Your task to perform on an android device: uninstall "LiveIn - Share Your Moment" Image 0: 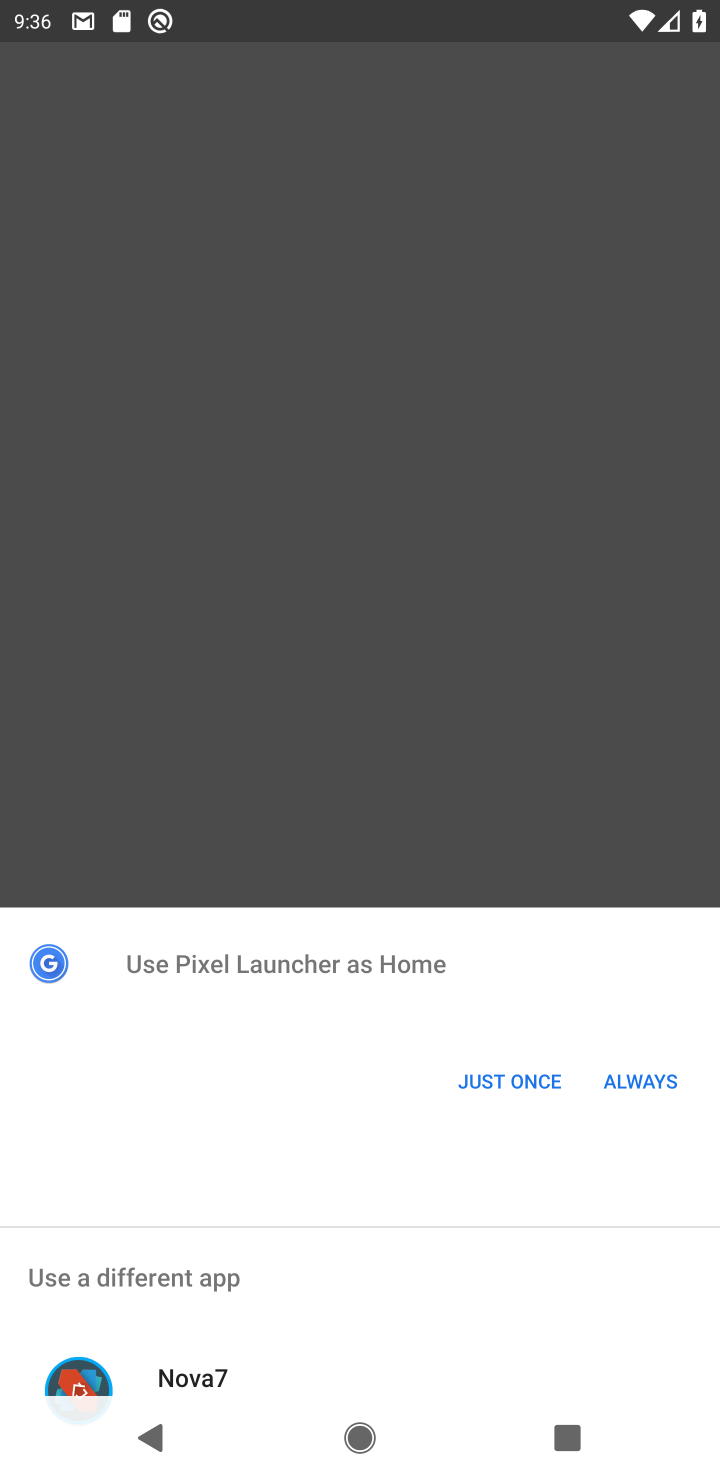
Step 0: press back button
Your task to perform on an android device: uninstall "LiveIn - Share Your Moment" Image 1: 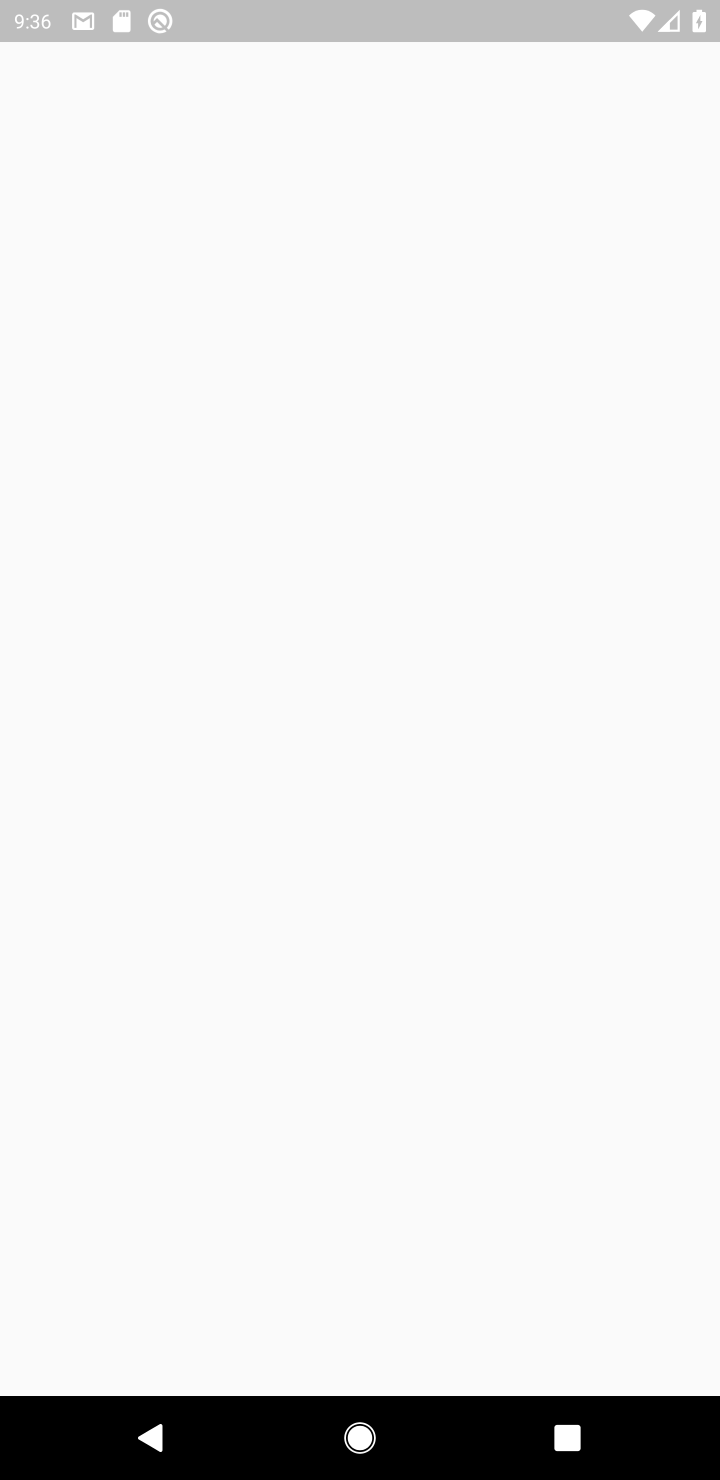
Step 1: press back button
Your task to perform on an android device: uninstall "LiveIn - Share Your Moment" Image 2: 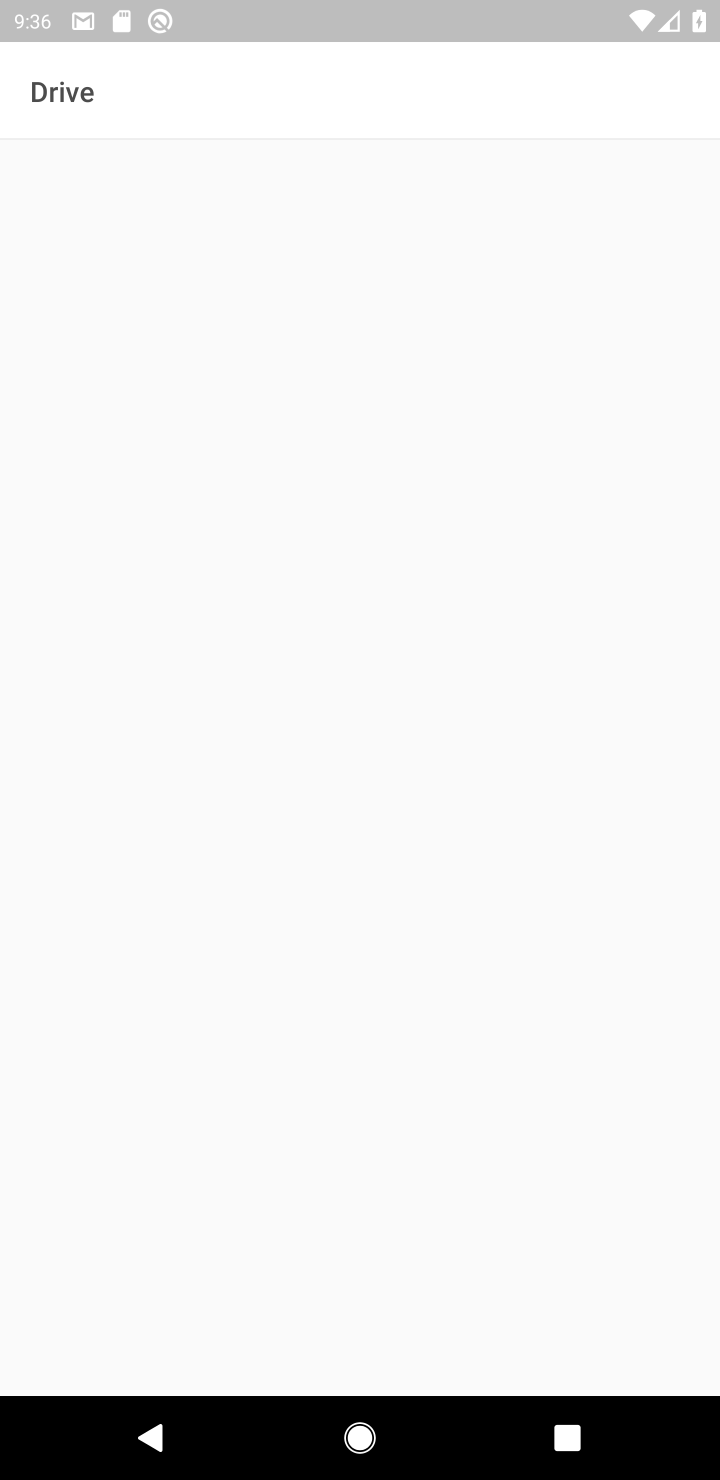
Step 2: press home button
Your task to perform on an android device: uninstall "LiveIn - Share Your Moment" Image 3: 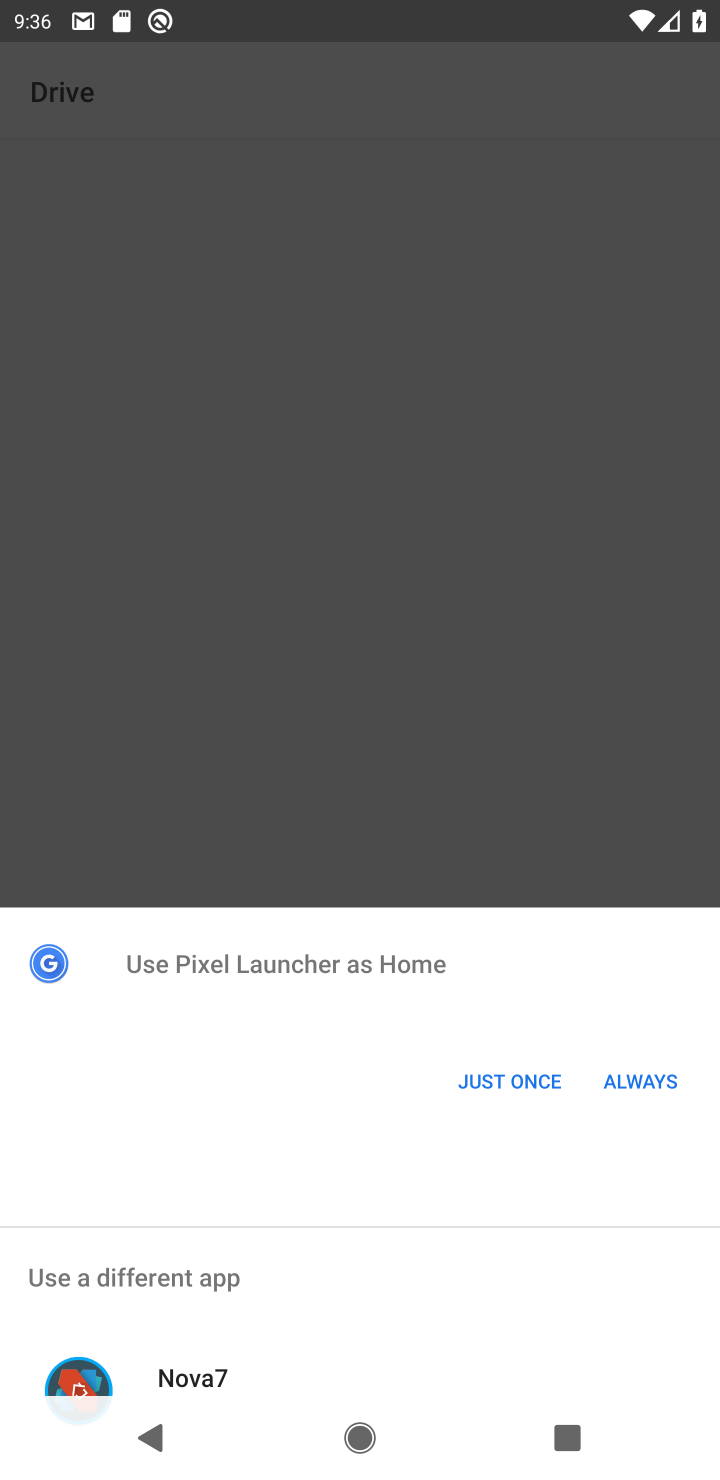
Step 3: press back button
Your task to perform on an android device: uninstall "LiveIn - Share Your Moment" Image 4: 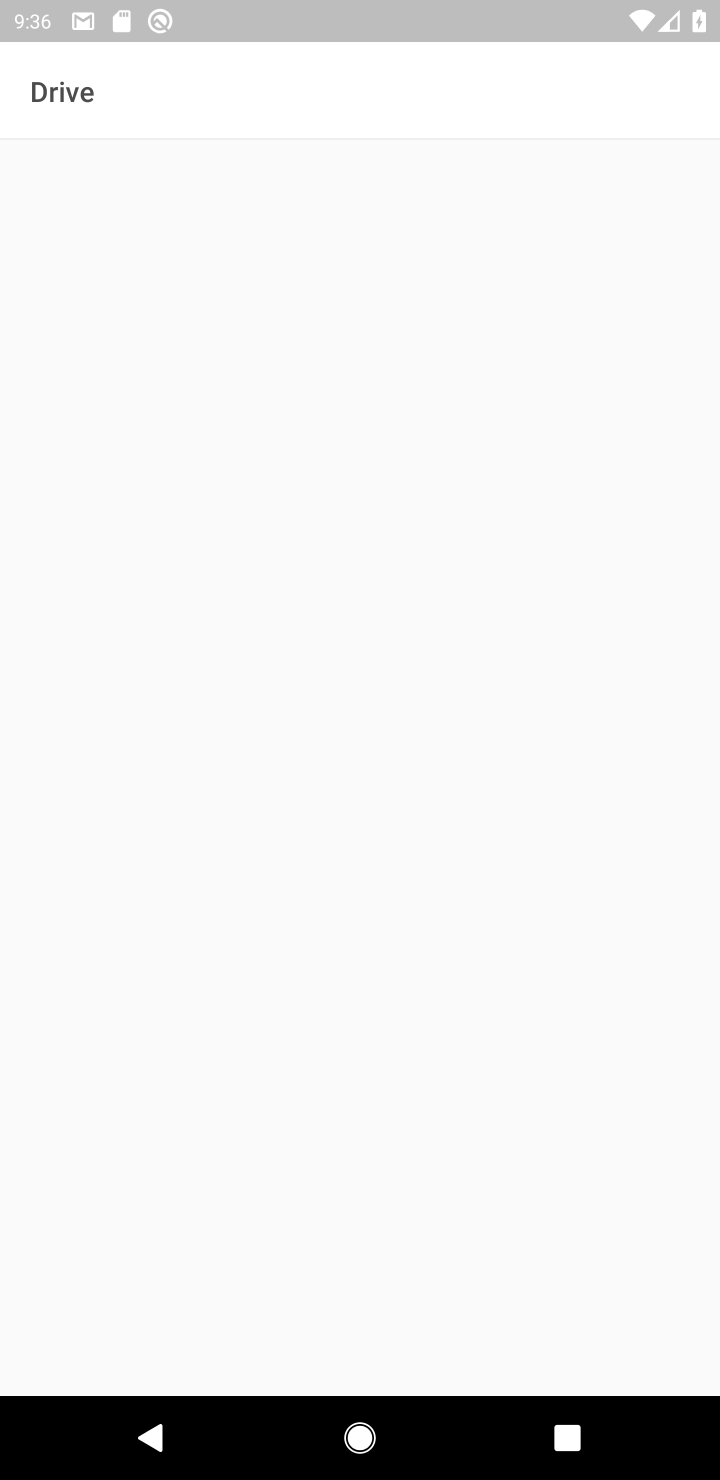
Step 4: press back button
Your task to perform on an android device: uninstall "LiveIn - Share Your Moment" Image 5: 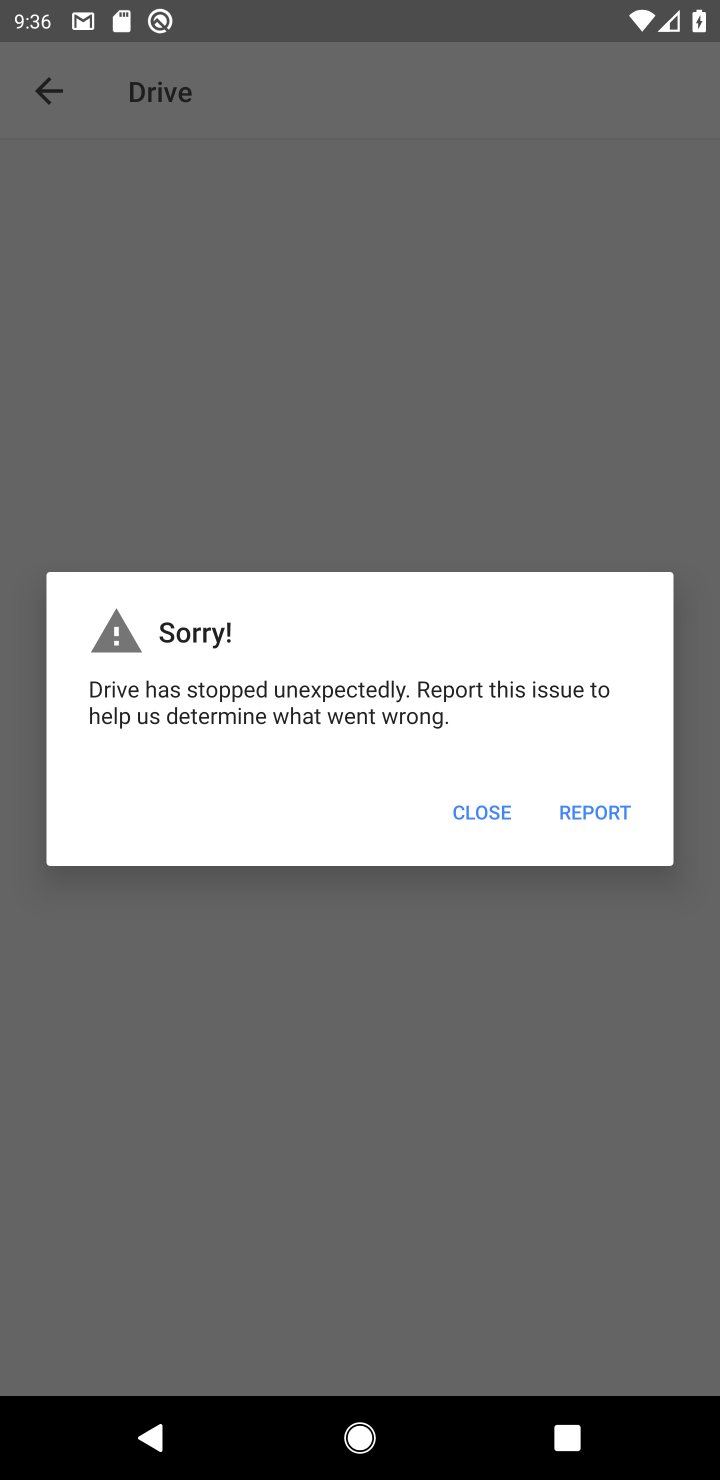
Step 5: press back button
Your task to perform on an android device: uninstall "LiveIn - Share Your Moment" Image 6: 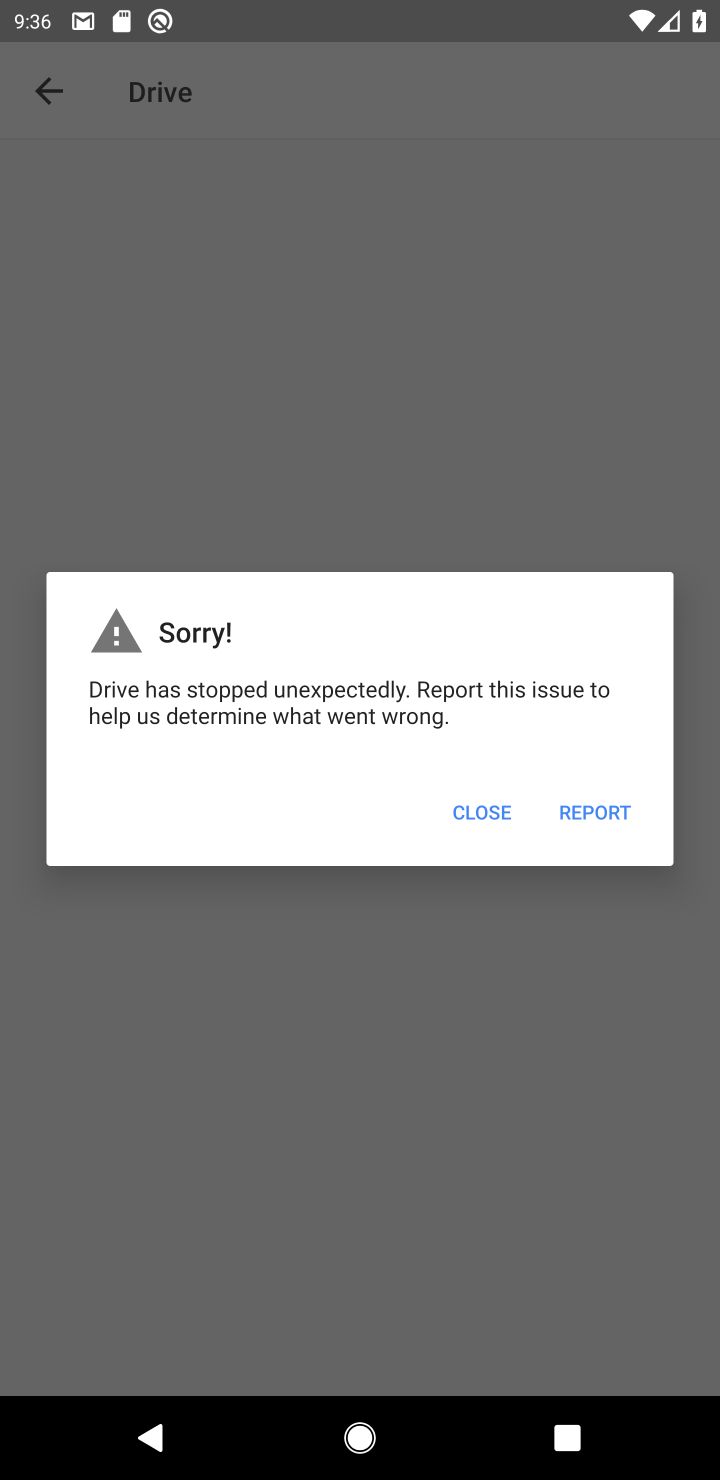
Step 6: press back button
Your task to perform on an android device: uninstall "LiveIn - Share Your Moment" Image 7: 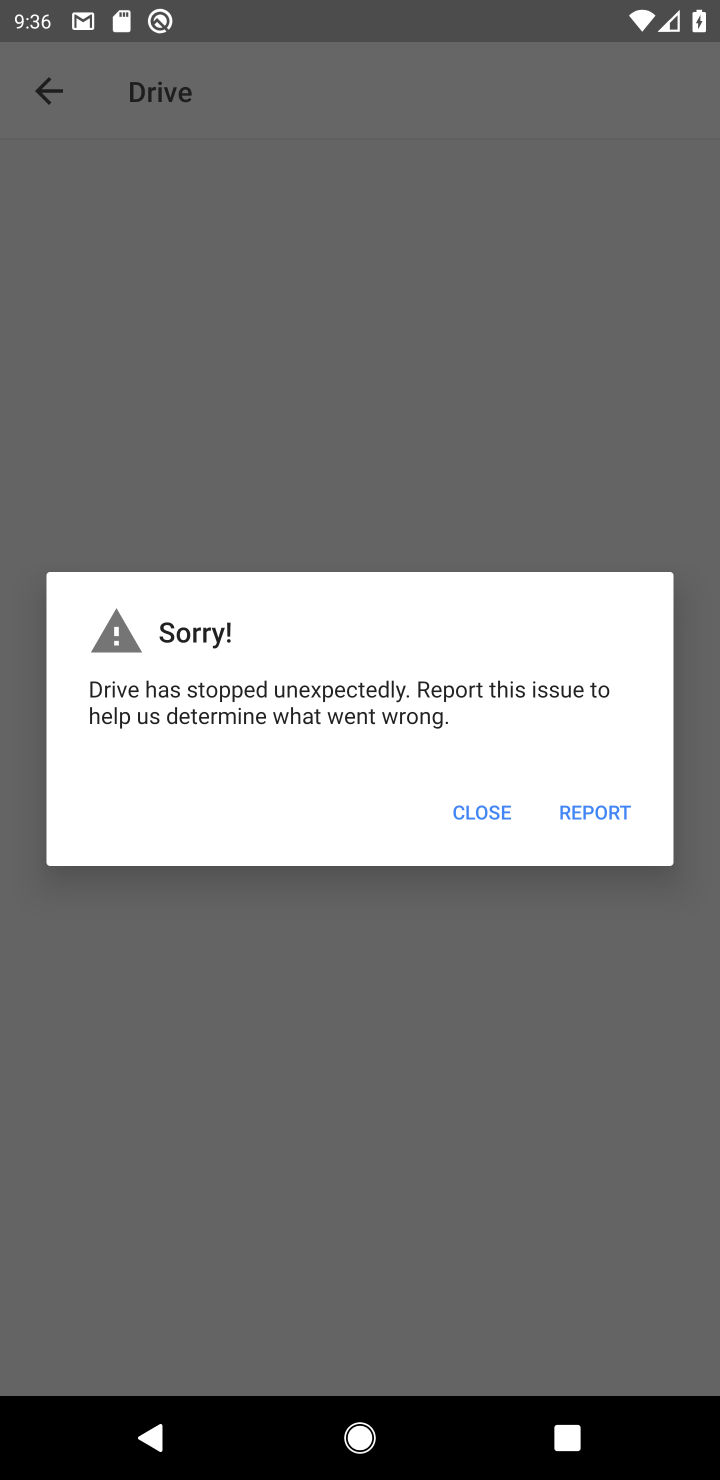
Step 7: press back button
Your task to perform on an android device: uninstall "LiveIn - Share Your Moment" Image 8: 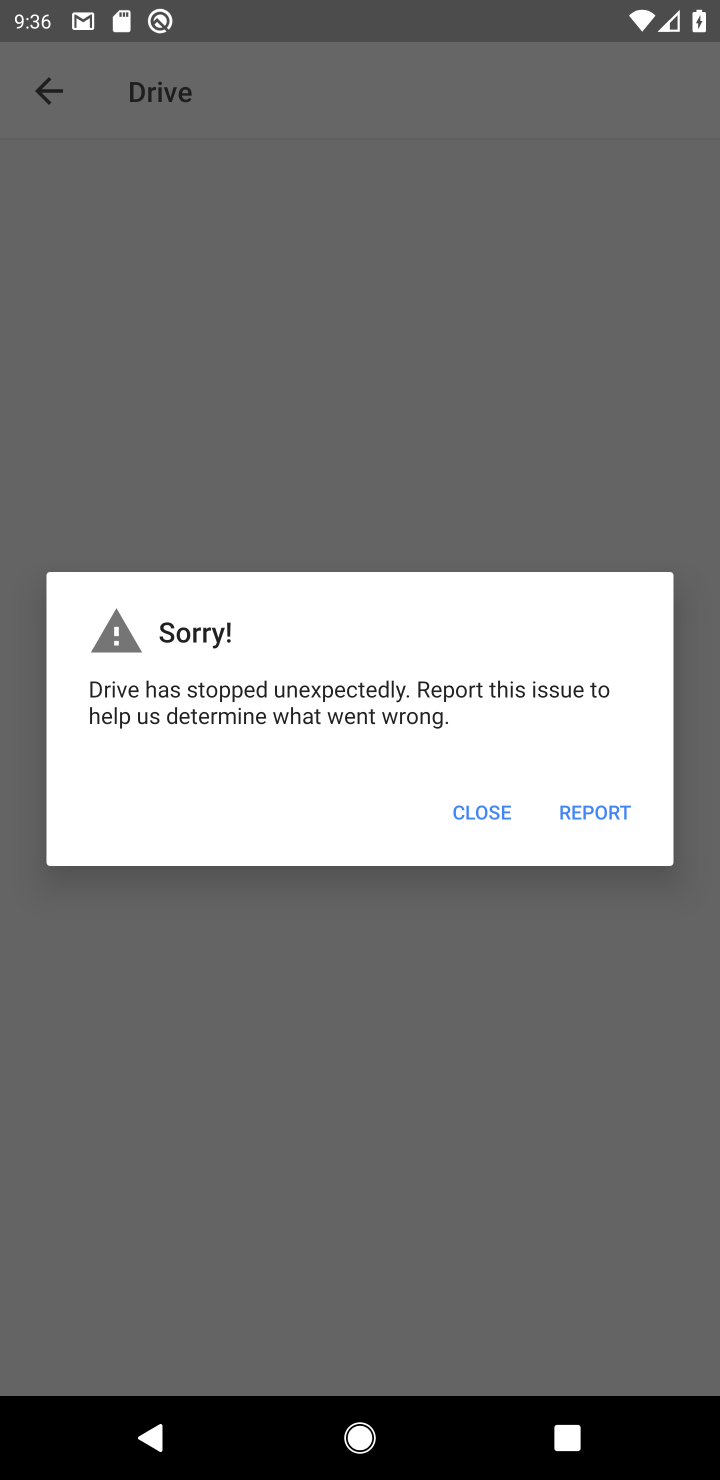
Step 8: click (462, 810)
Your task to perform on an android device: uninstall "LiveIn - Share Your Moment" Image 9: 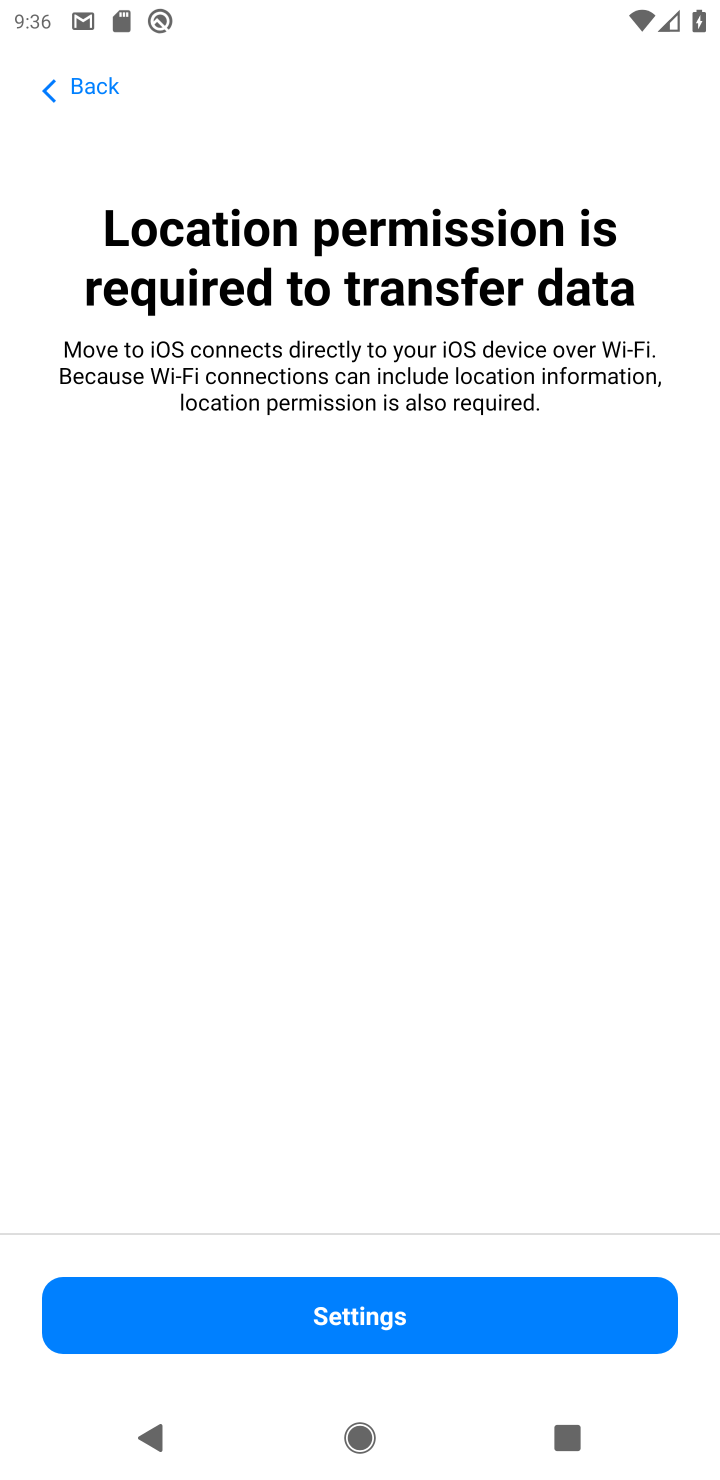
Step 9: press back button
Your task to perform on an android device: uninstall "LiveIn - Share Your Moment" Image 10: 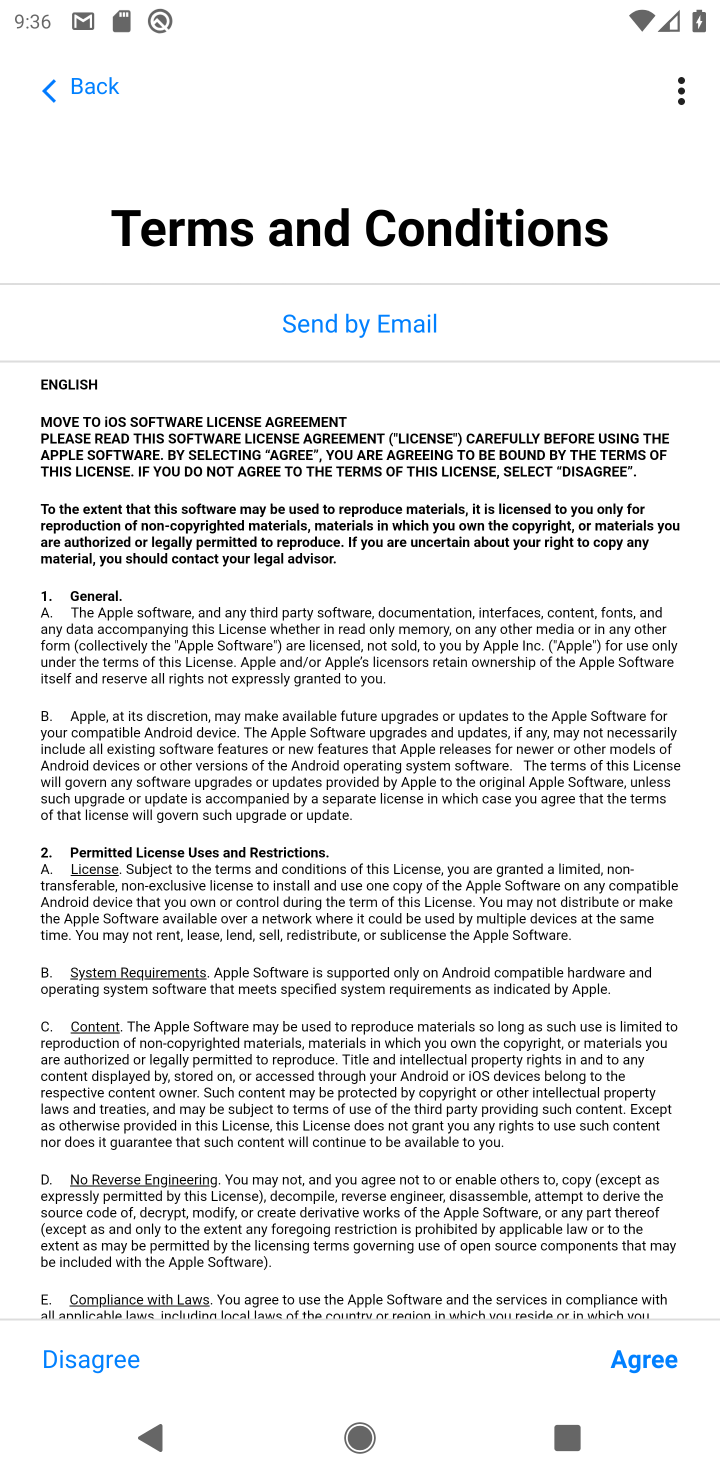
Step 10: press back button
Your task to perform on an android device: uninstall "LiveIn - Share Your Moment" Image 11: 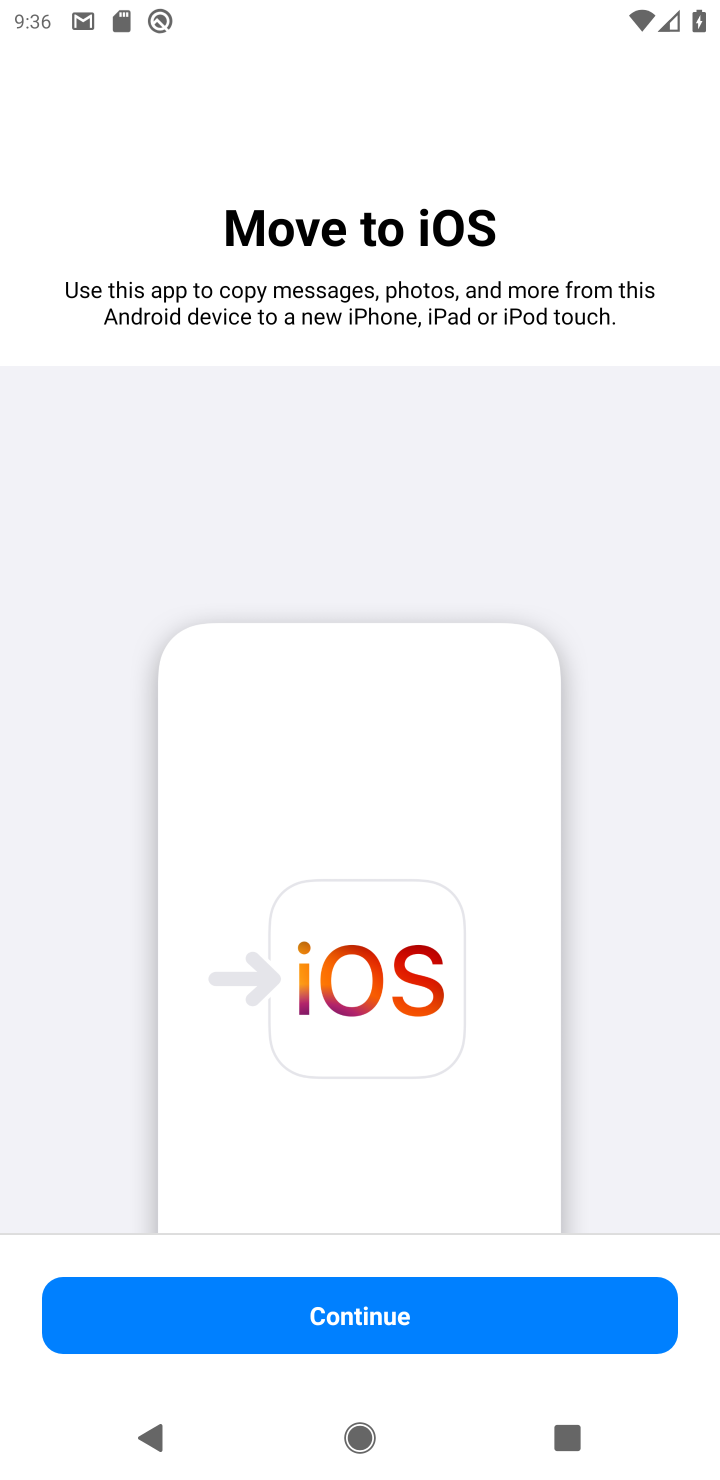
Step 11: press back button
Your task to perform on an android device: uninstall "LiveIn - Share Your Moment" Image 12: 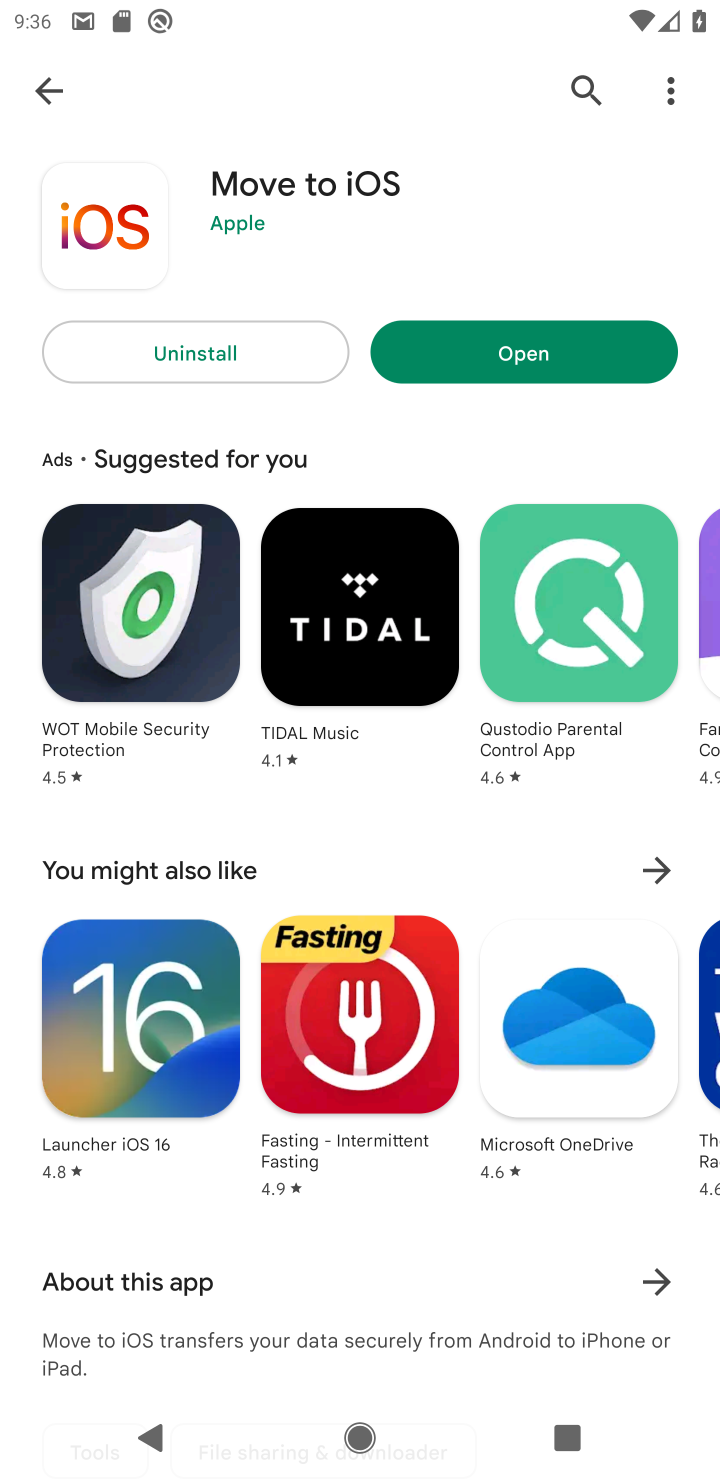
Step 12: click (585, 82)
Your task to perform on an android device: uninstall "LiveIn - Share Your Moment" Image 13: 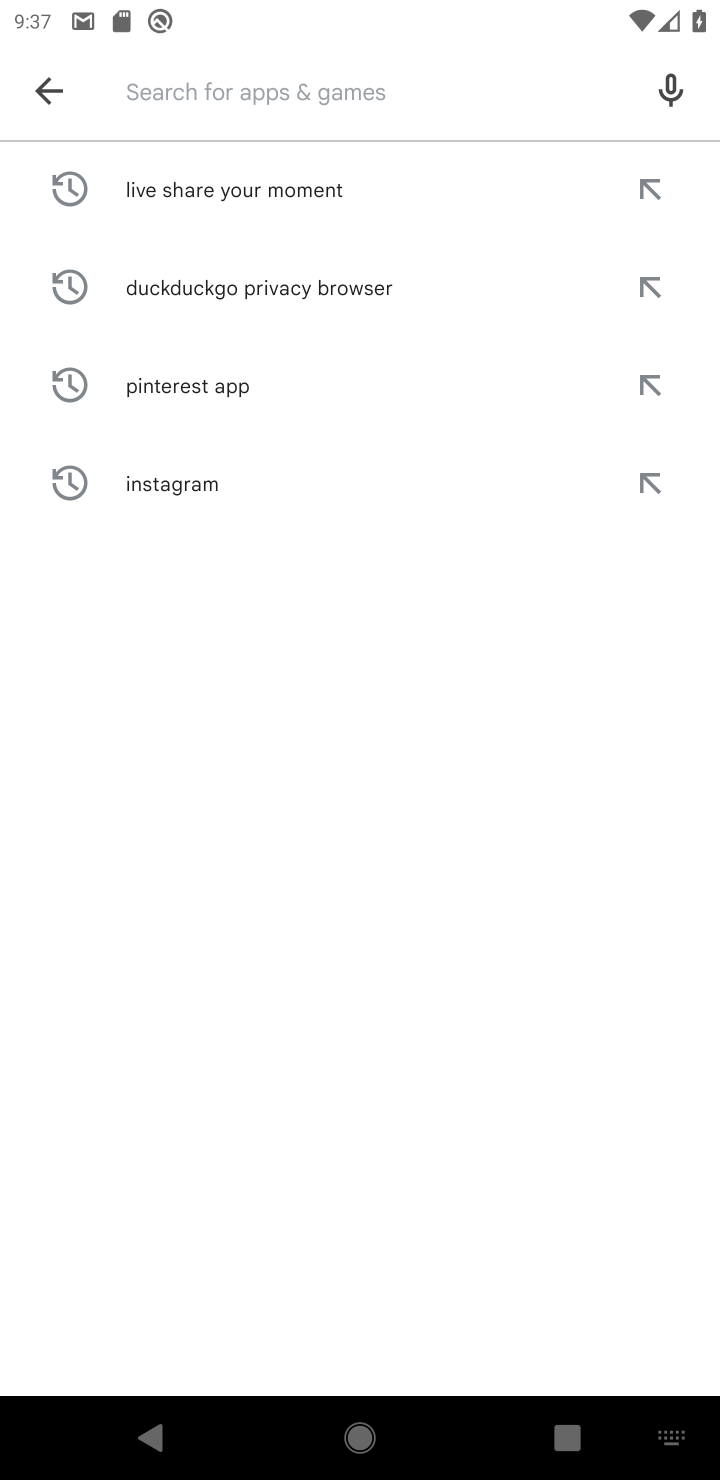
Step 13: click (356, 94)
Your task to perform on an android device: uninstall "LiveIn - Share Your Moment" Image 14: 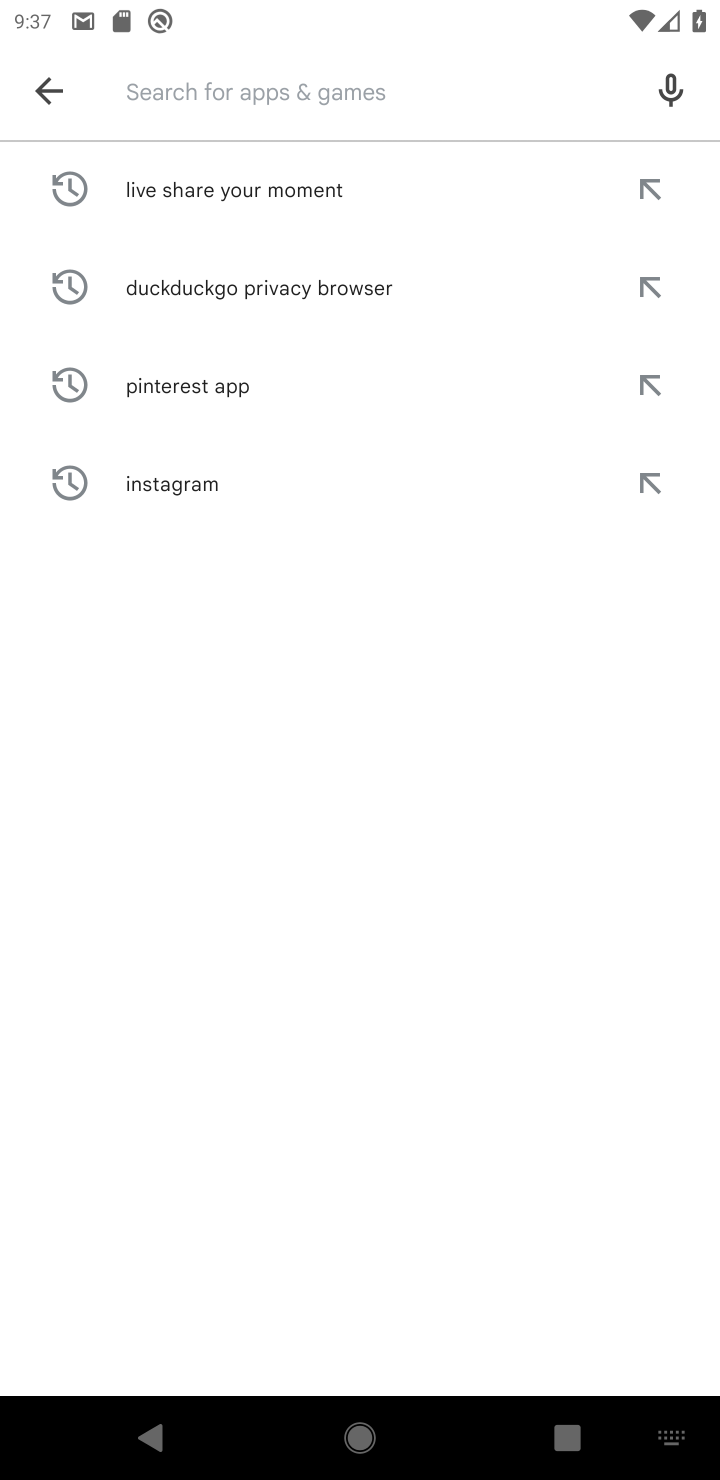
Step 14: type "livein"
Your task to perform on an android device: uninstall "LiveIn - Share Your Moment" Image 15: 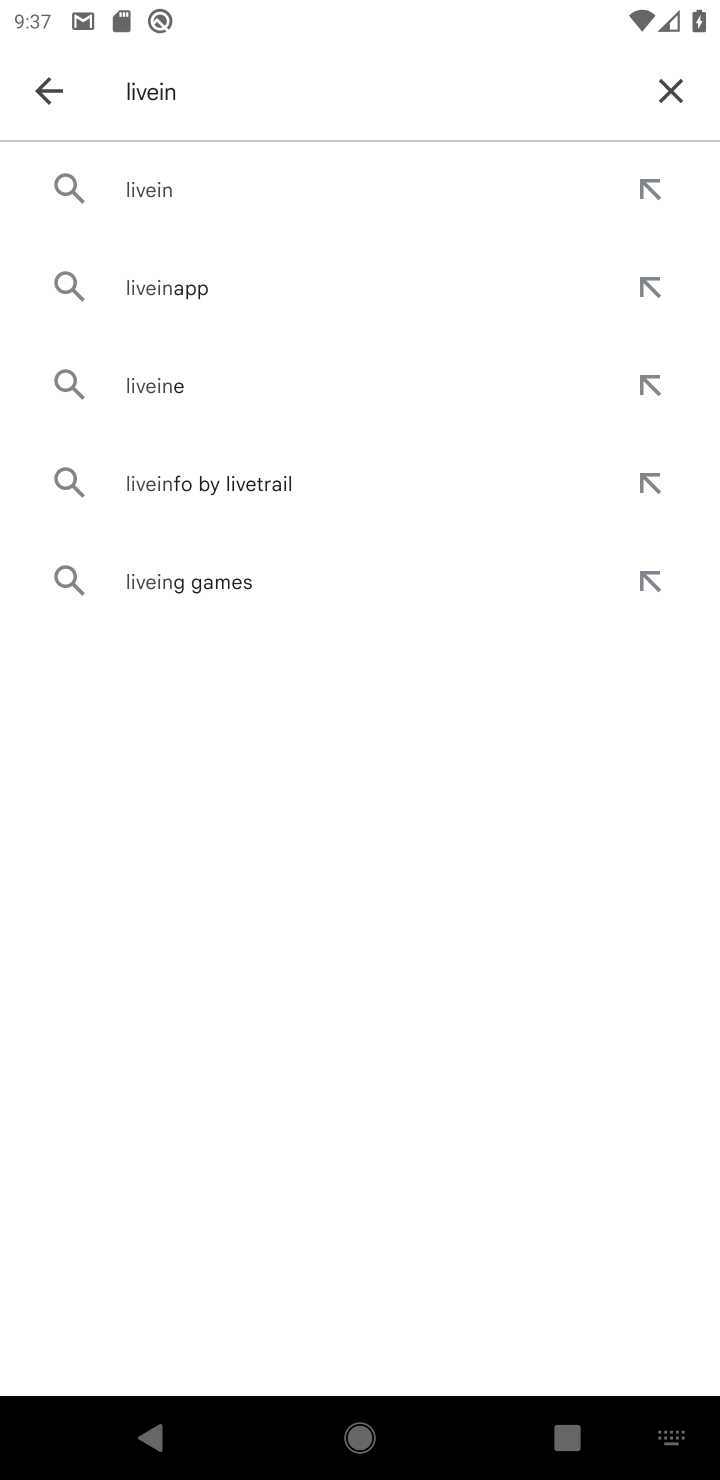
Step 15: click (170, 184)
Your task to perform on an android device: uninstall "LiveIn - Share Your Moment" Image 16: 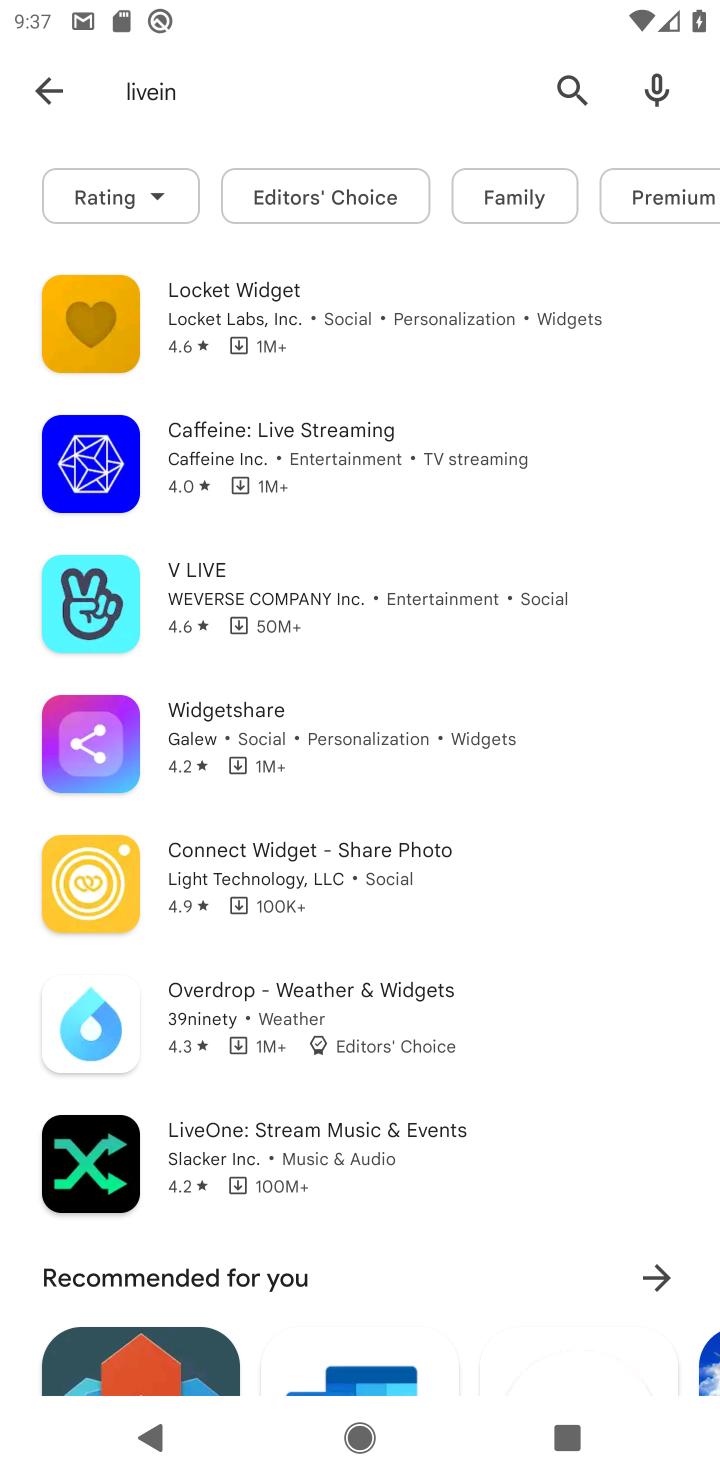
Step 16: task complete